Your task to perform on an android device: What's the weather? Image 0: 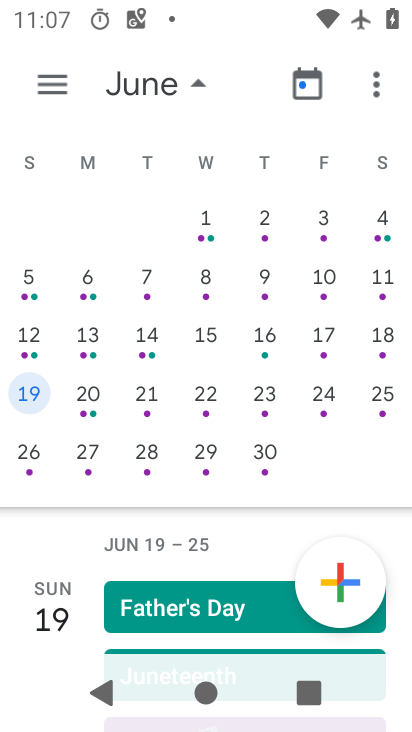
Step 0: press home button
Your task to perform on an android device: What's the weather? Image 1: 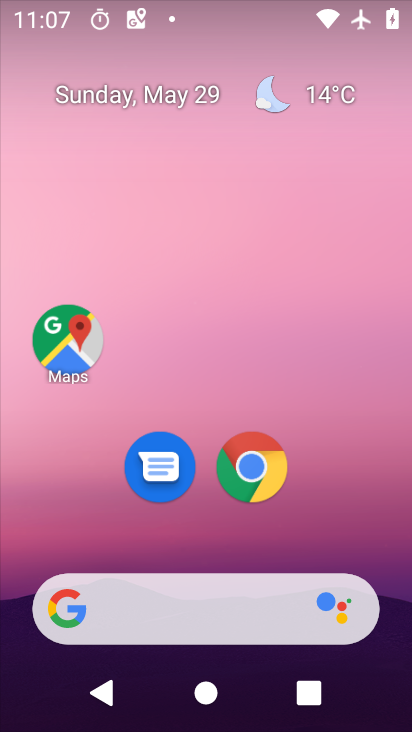
Step 1: drag from (219, 529) to (221, 177)
Your task to perform on an android device: What's the weather? Image 2: 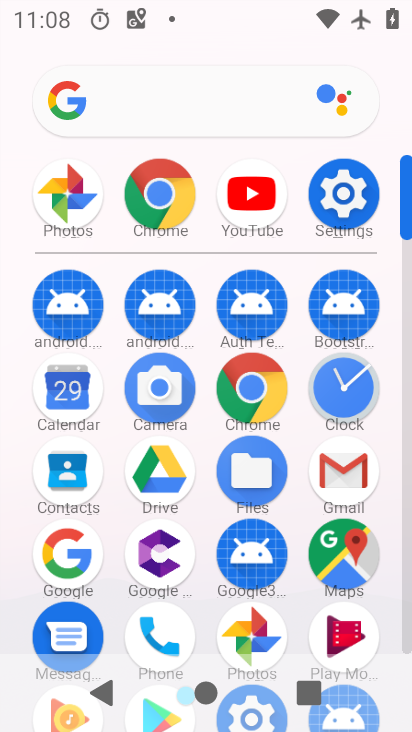
Step 2: click (59, 551)
Your task to perform on an android device: What's the weather? Image 3: 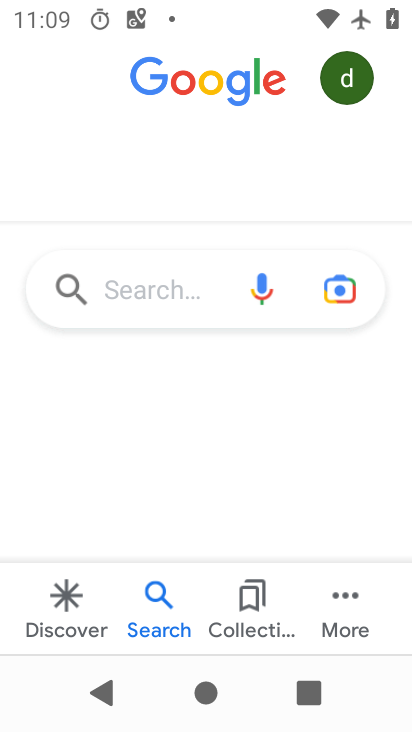
Step 3: click (161, 295)
Your task to perform on an android device: What's the weather? Image 4: 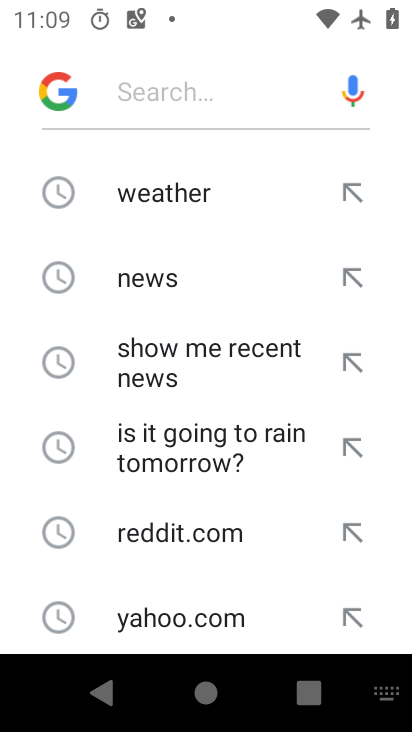
Step 4: click (157, 195)
Your task to perform on an android device: What's the weather? Image 5: 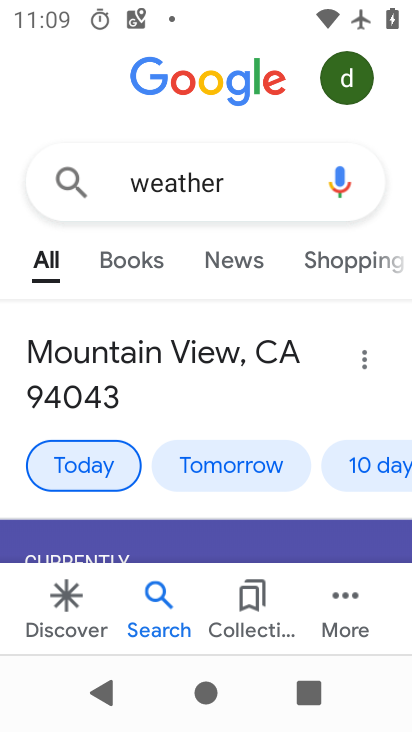
Step 5: task complete